Your task to perform on an android device: Toggle the flashlight Image 0: 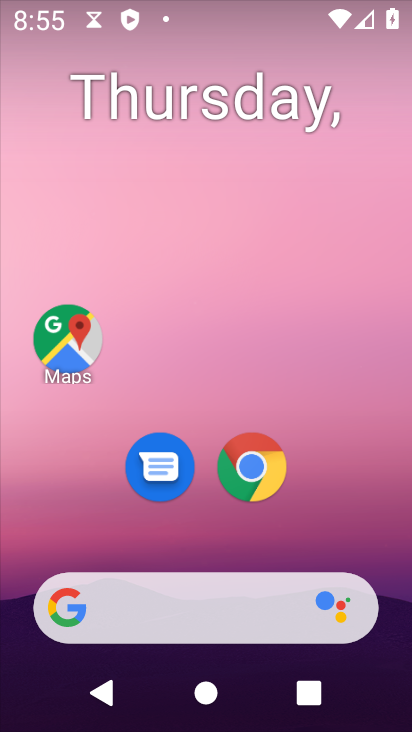
Step 0: drag from (306, 487) to (254, 168)
Your task to perform on an android device: Toggle the flashlight Image 1: 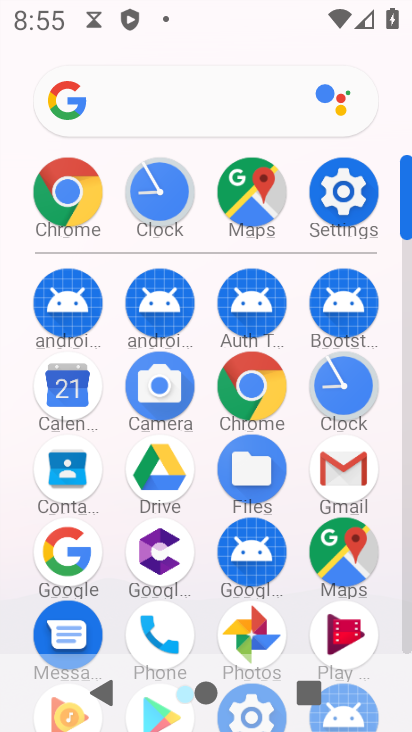
Step 1: click (315, 191)
Your task to perform on an android device: Toggle the flashlight Image 2: 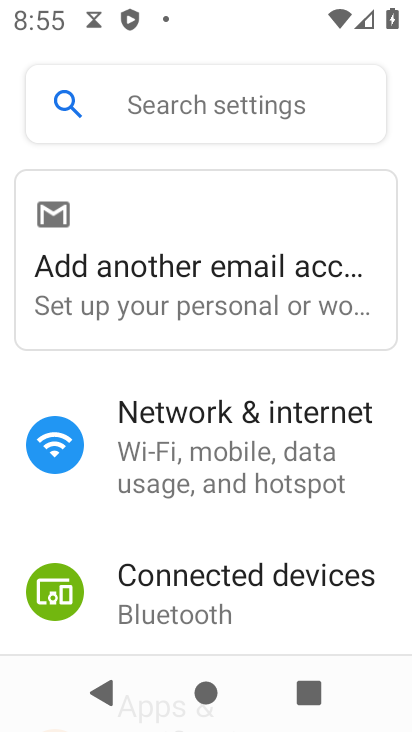
Step 2: task complete